Your task to perform on an android device: make emails show in primary in the gmail app Image 0: 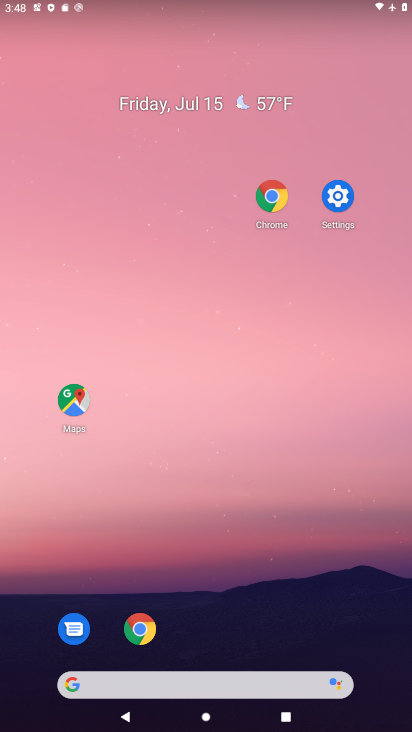
Step 0: drag from (259, 506) to (230, 24)
Your task to perform on an android device: make emails show in primary in the gmail app Image 1: 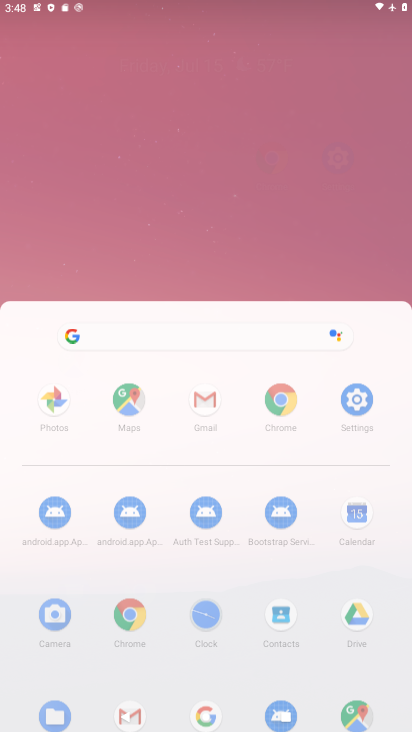
Step 1: drag from (269, 570) to (211, 99)
Your task to perform on an android device: make emails show in primary in the gmail app Image 2: 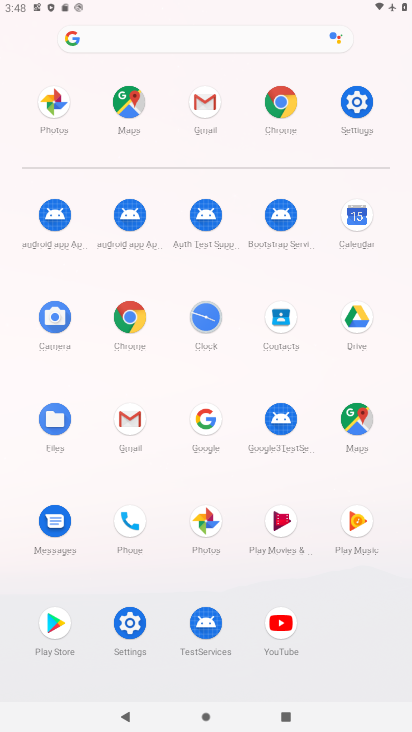
Step 2: drag from (403, 729) to (334, 248)
Your task to perform on an android device: make emails show in primary in the gmail app Image 3: 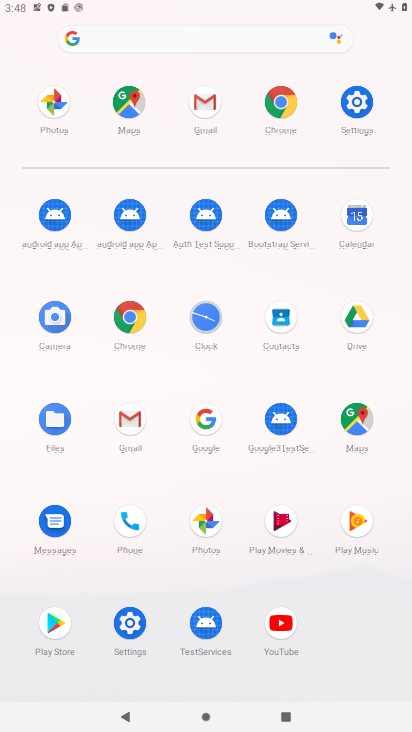
Step 3: click (110, 412)
Your task to perform on an android device: make emails show in primary in the gmail app Image 4: 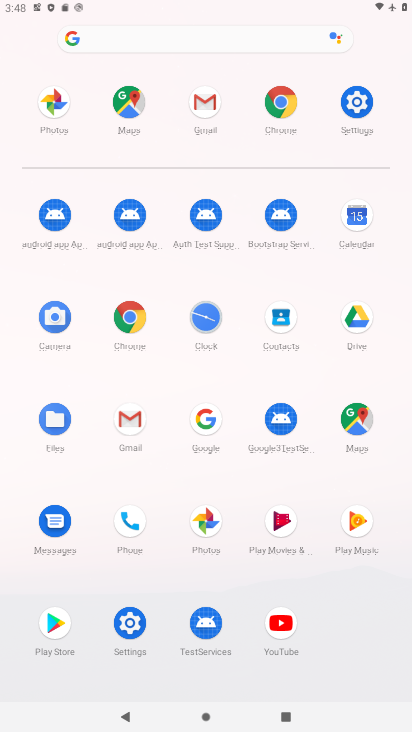
Step 4: click (115, 413)
Your task to perform on an android device: make emails show in primary in the gmail app Image 5: 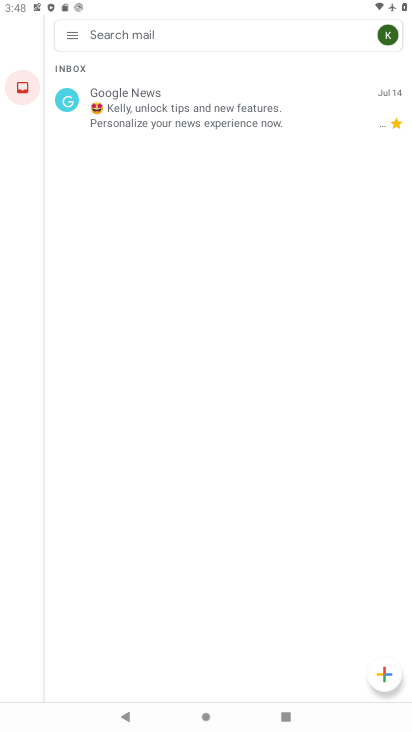
Step 5: click (70, 29)
Your task to perform on an android device: make emails show in primary in the gmail app Image 6: 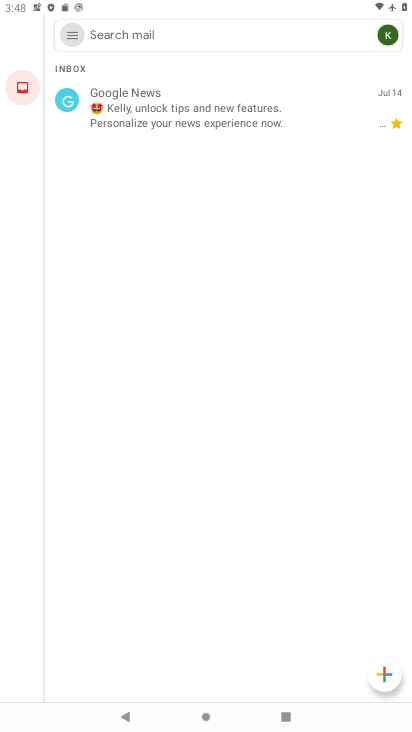
Step 6: click (70, 28)
Your task to perform on an android device: make emails show in primary in the gmail app Image 7: 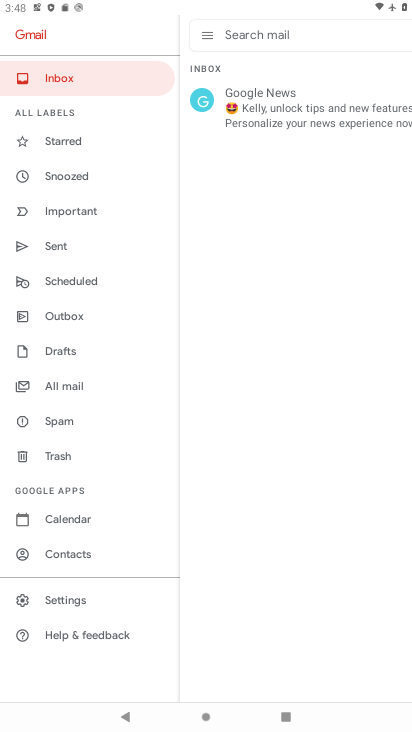
Step 7: click (69, 598)
Your task to perform on an android device: make emails show in primary in the gmail app Image 8: 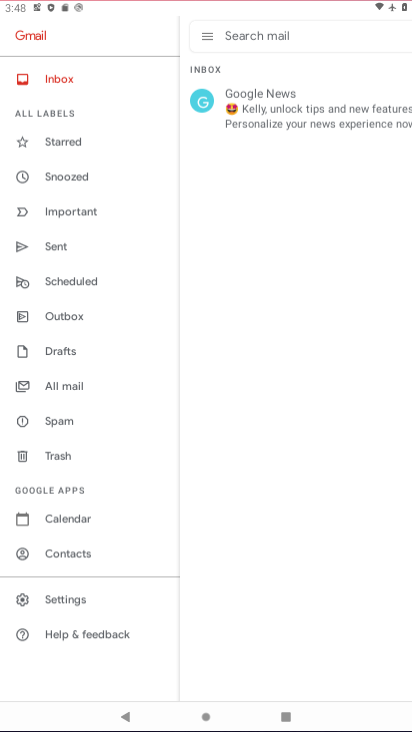
Step 8: click (68, 597)
Your task to perform on an android device: make emails show in primary in the gmail app Image 9: 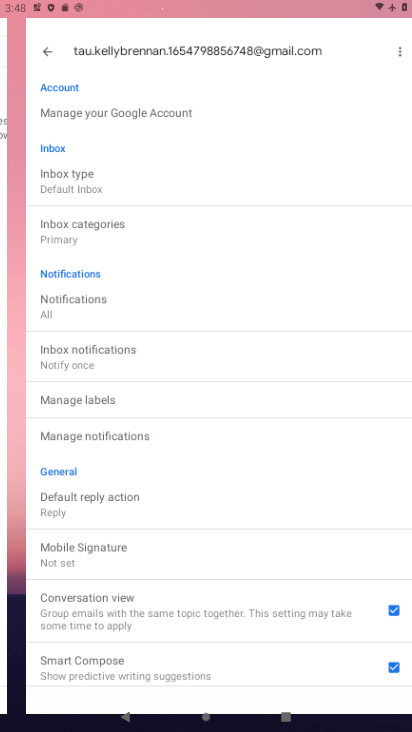
Step 9: click (68, 597)
Your task to perform on an android device: make emails show in primary in the gmail app Image 10: 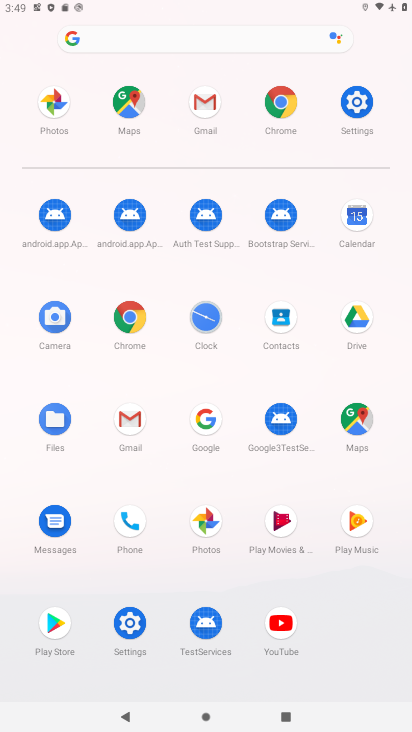
Step 10: click (122, 426)
Your task to perform on an android device: make emails show in primary in the gmail app Image 11: 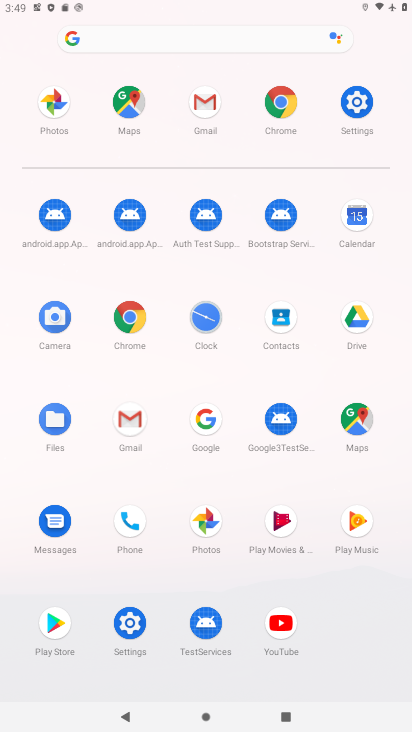
Step 11: click (127, 420)
Your task to perform on an android device: make emails show in primary in the gmail app Image 12: 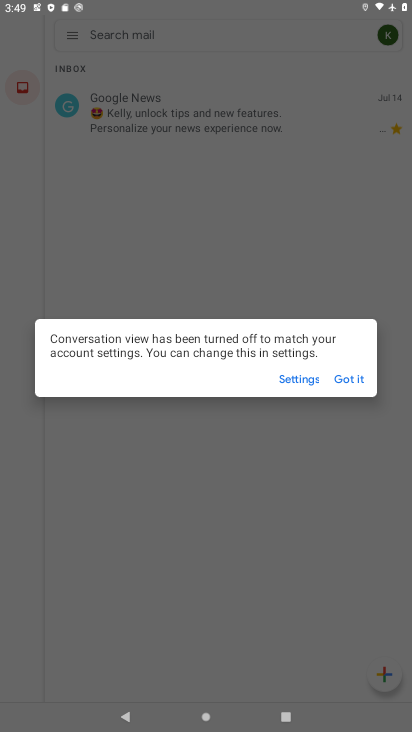
Step 12: click (343, 384)
Your task to perform on an android device: make emails show in primary in the gmail app Image 13: 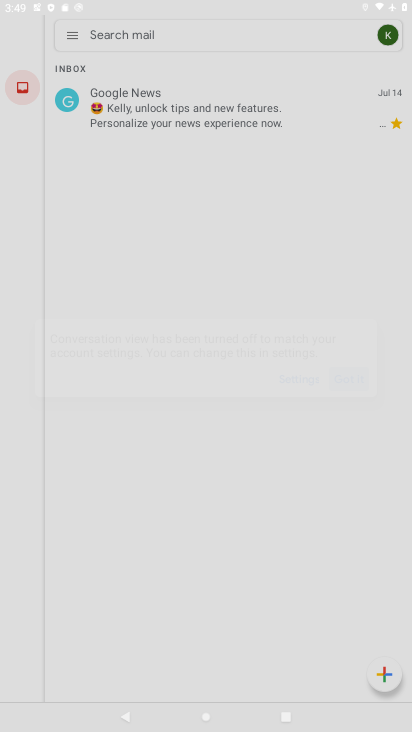
Step 13: click (344, 384)
Your task to perform on an android device: make emails show in primary in the gmail app Image 14: 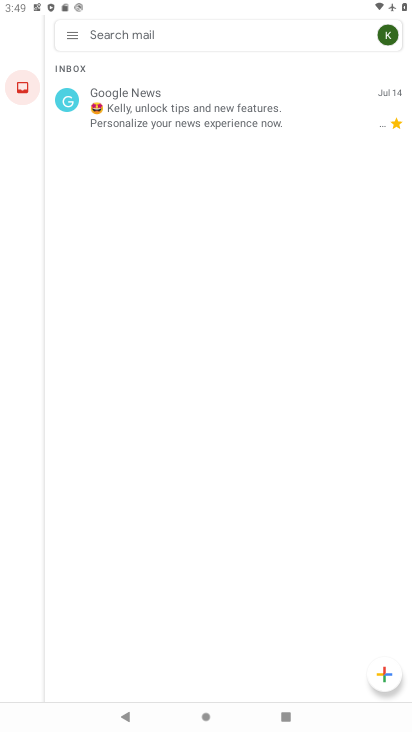
Step 14: click (344, 384)
Your task to perform on an android device: make emails show in primary in the gmail app Image 15: 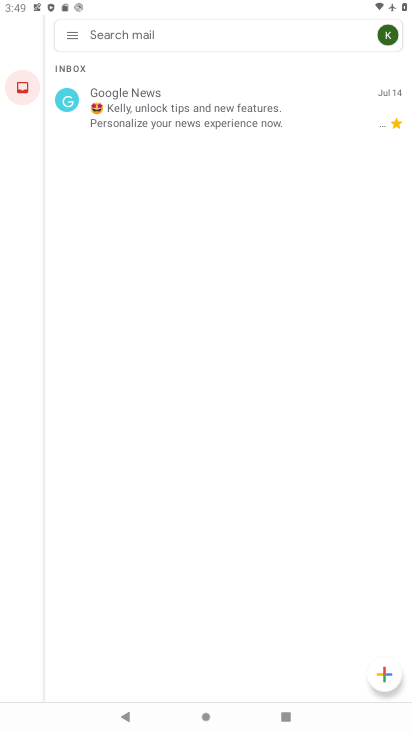
Step 15: click (73, 33)
Your task to perform on an android device: make emails show in primary in the gmail app Image 16: 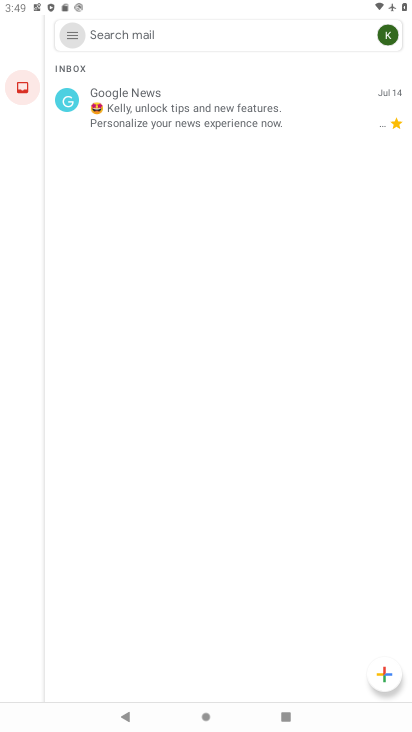
Step 16: click (73, 33)
Your task to perform on an android device: make emails show in primary in the gmail app Image 17: 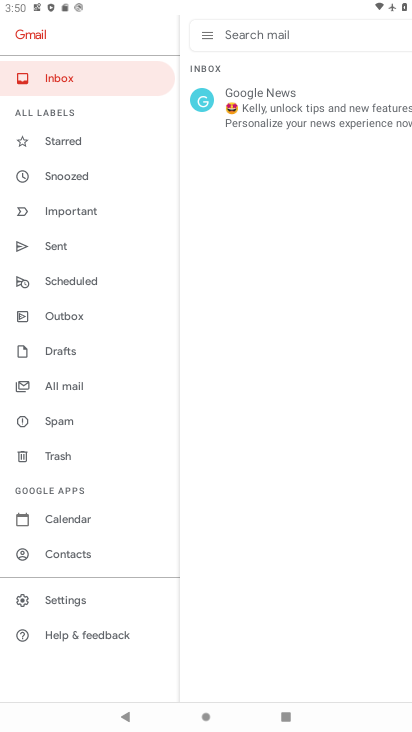
Step 17: click (63, 389)
Your task to perform on an android device: make emails show in primary in the gmail app Image 18: 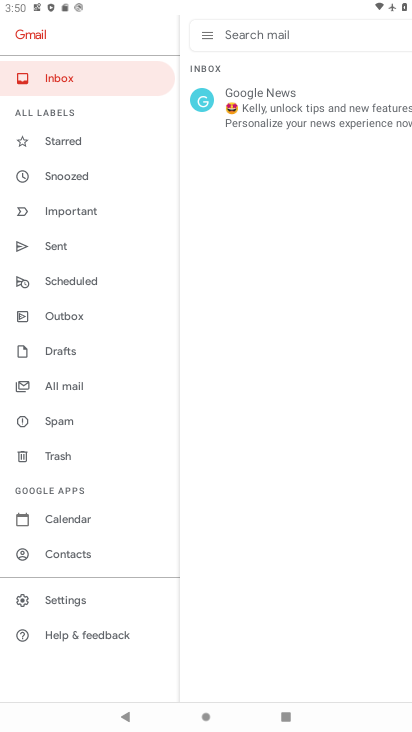
Step 18: click (63, 389)
Your task to perform on an android device: make emails show in primary in the gmail app Image 19: 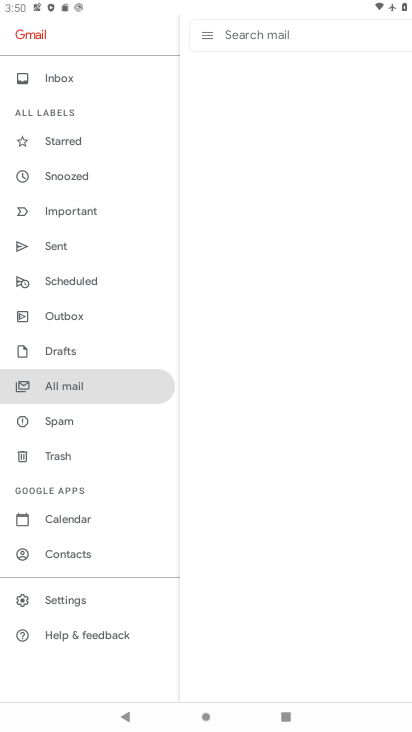
Step 19: click (63, 389)
Your task to perform on an android device: make emails show in primary in the gmail app Image 20: 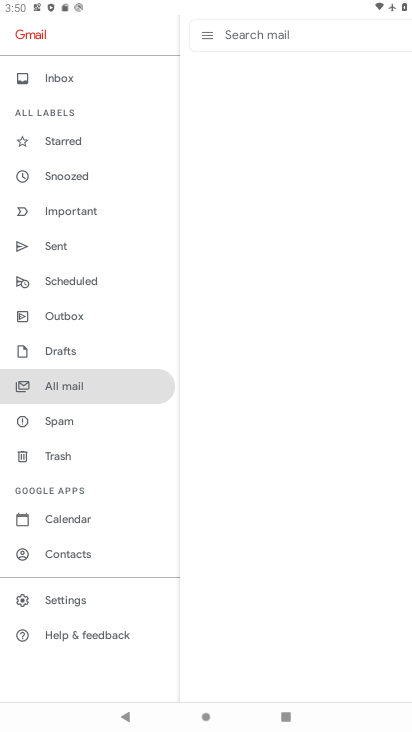
Step 20: click (63, 389)
Your task to perform on an android device: make emails show in primary in the gmail app Image 21: 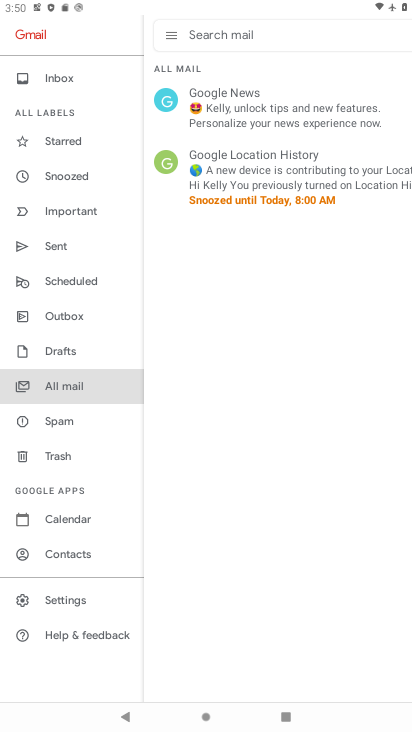
Step 21: click (63, 389)
Your task to perform on an android device: make emails show in primary in the gmail app Image 22: 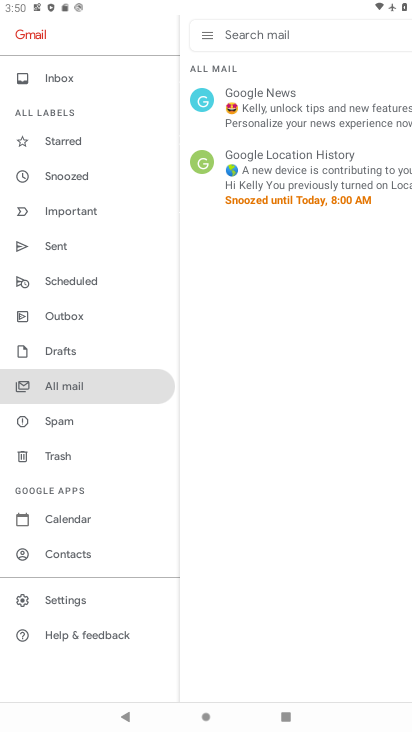
Step 22: click (262, 173)
Your task to perform on an android device: make emails show in primary in the gmail app Image 23: 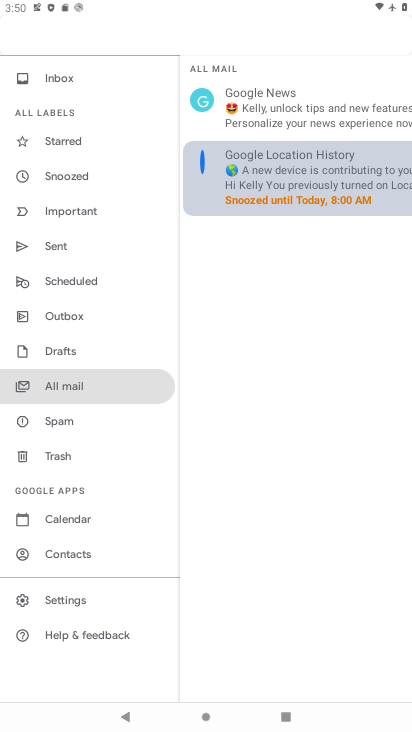
Step 23: click (262, 173)
Your task to perform on an android device: make emails show in primary in the gmail app Image 24: 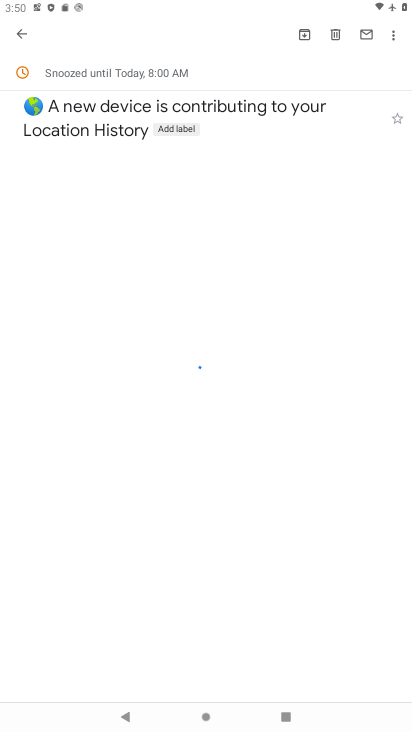
Step 24: click (25, 31)
Your task to perform on an android device: make emails show in primary in the gmail app Image 25: 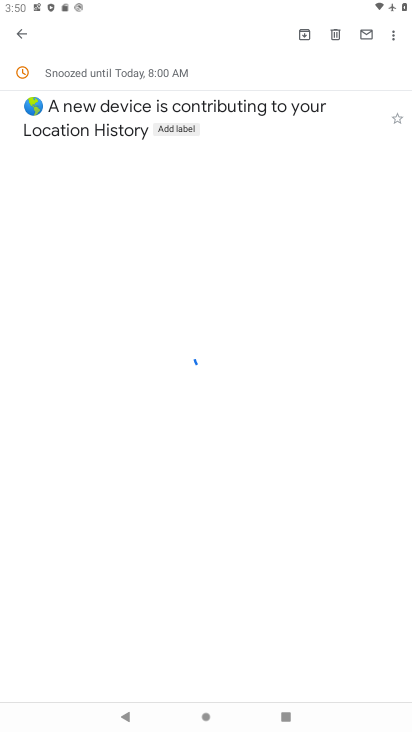
Step 25: click (25, 31)
Your task to perform on an android device: make emails show in primary in the gmail app Image 26: 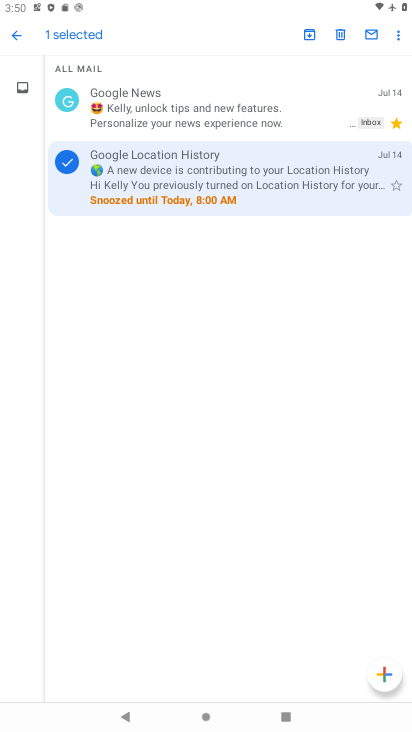
Step 26: click (21, 36)
Your task to perform on an android device: make emails show in primary in the gmail app Image 27: 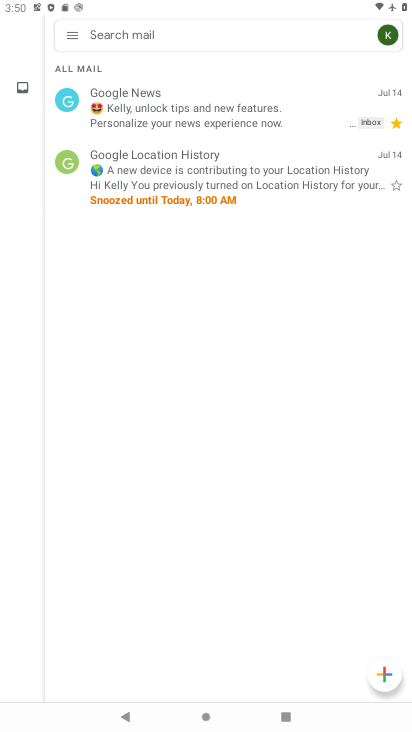
Step 27: click (63, 35)
Your task to perform on an android device: make emails show in primary in the gmail app Image 28: 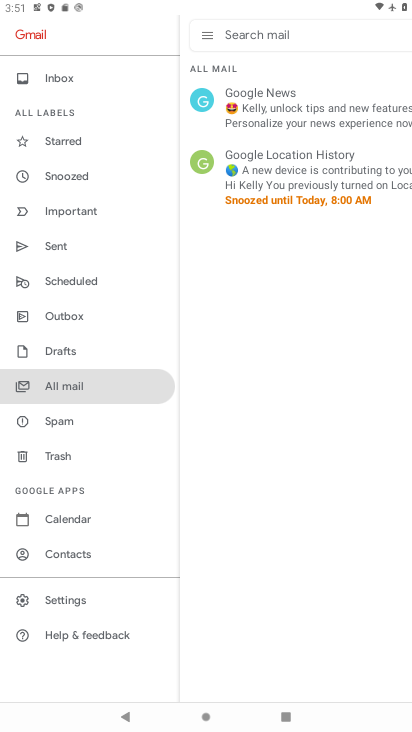
Step 28: click (63, 598)
Your task to perform on an android device: make emails show in primary in the gmail app Image 29: 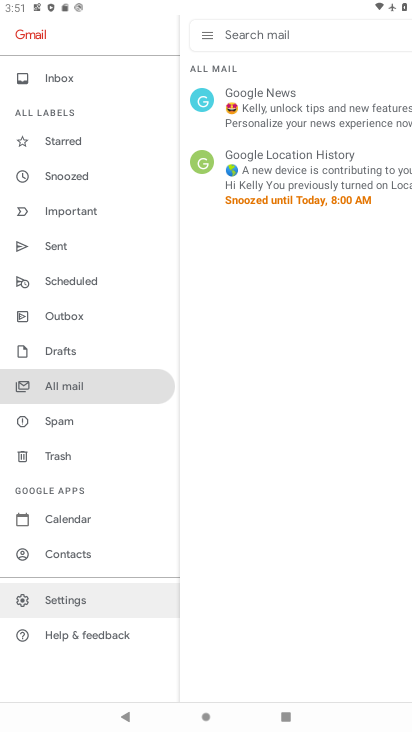
Step 29: click (62, 599)
Your task to perform on an android device: make emails show in primary in the gmail app Image 30: 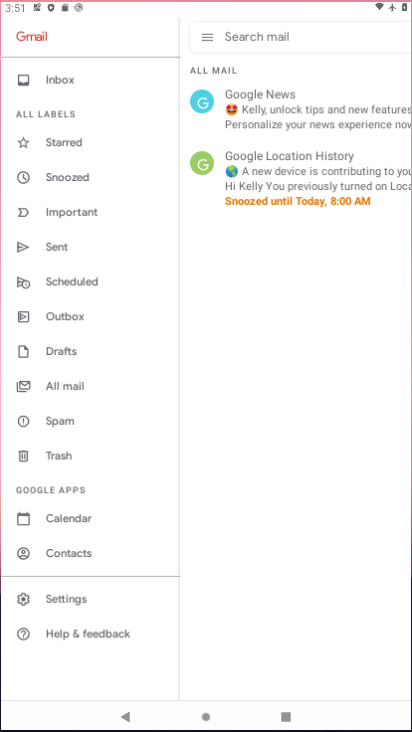
Step 30: click (62, 599)
Your task to perform on an android device: make emails show in primary in the gmail app Image 31: 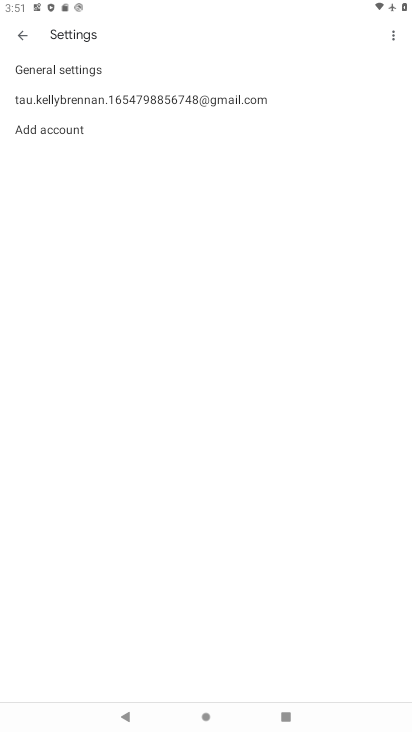
Step 31: click (52, 95)
Your task to perform on an android device: make emails show in primary in the gmail app Image 32: 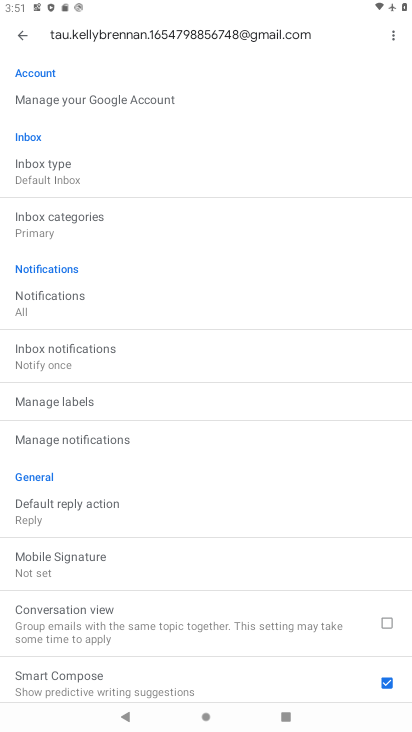
Step 32: task complete